Your task to perform on an android device: allow cookies in the chrome app Image 0: 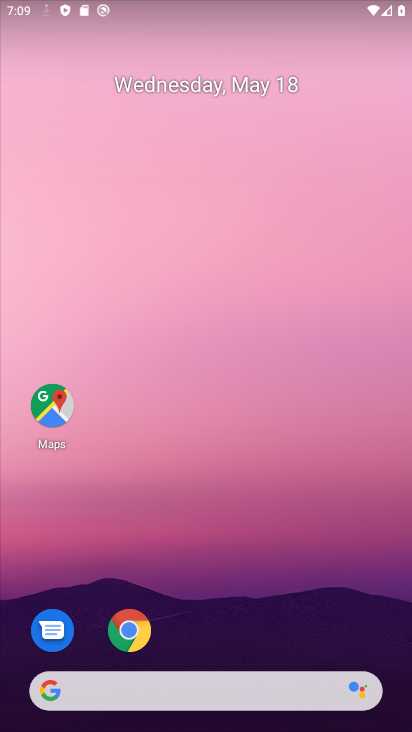
Step 0: click (127, 628)
Your task to perform on an android device: allow cookies in the chrome app Image 1: 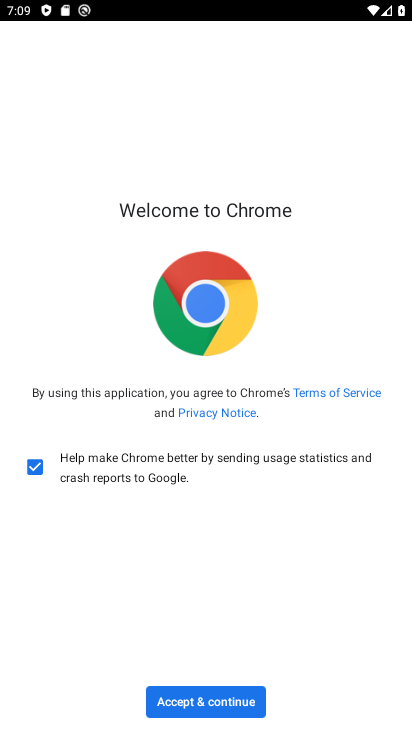
Step 1: click (214, 693)
Your task to perform on an android device: allow cookies in the chrome app Image 2: 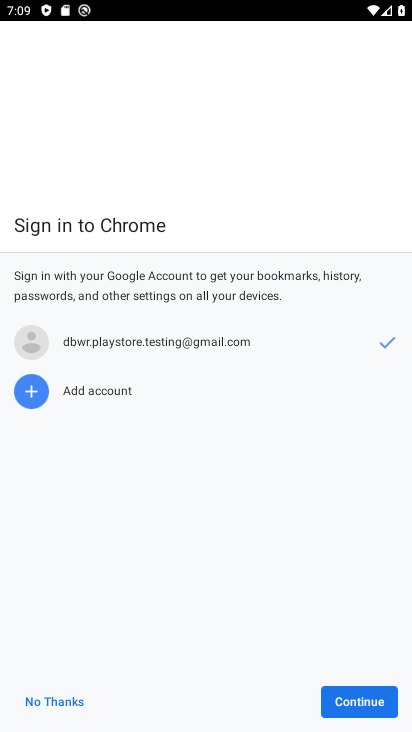
Step 2: click (347, 695)
Your task to perform on an android device: allow cookies in the chrome app Image 3: 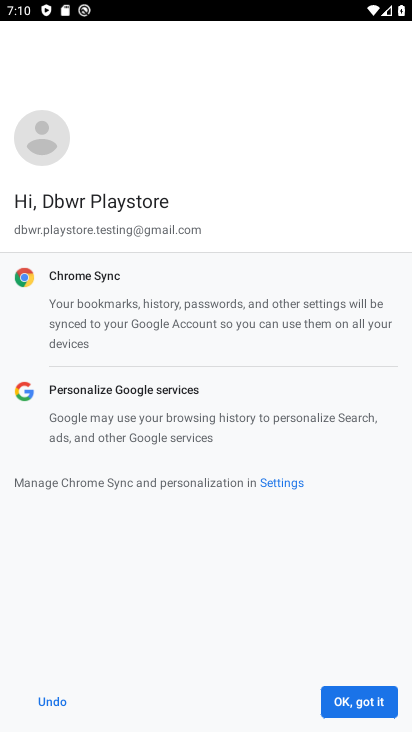
Step 3: click (337, 700)
Your task to perform on an android device: allow cookies in the chrome app Image 4: 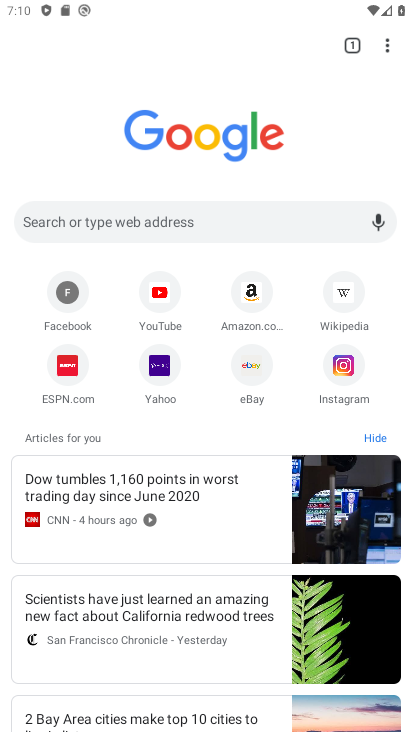
Step 4: click (389, 36)
Your task to perform on an android device: allow cookies in the chrome app Image 5: 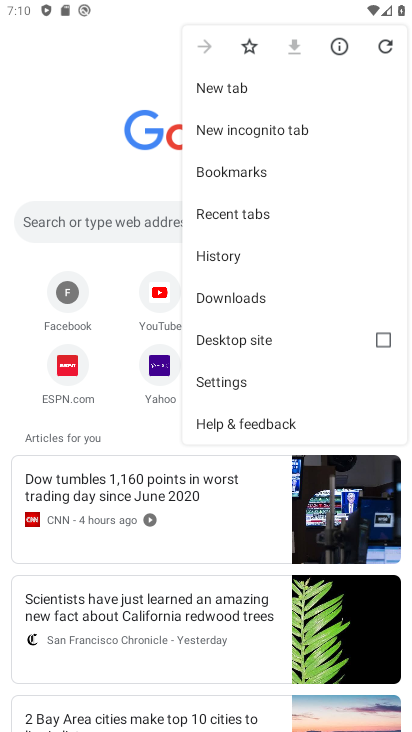
Step 5: click (220, 374)
Your task to perform on an android device: allow cookies in the chrome app Image 6: 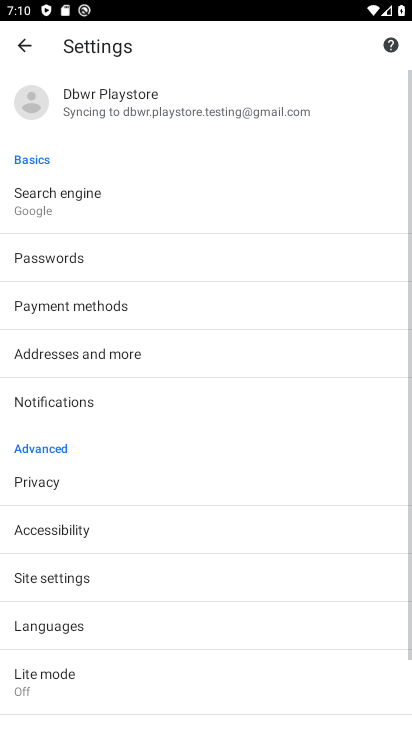
Step 6: drag from (305, 425) to (227, 134)
Your task to perform on an android device: allow cookies in the chrome app Image 7: 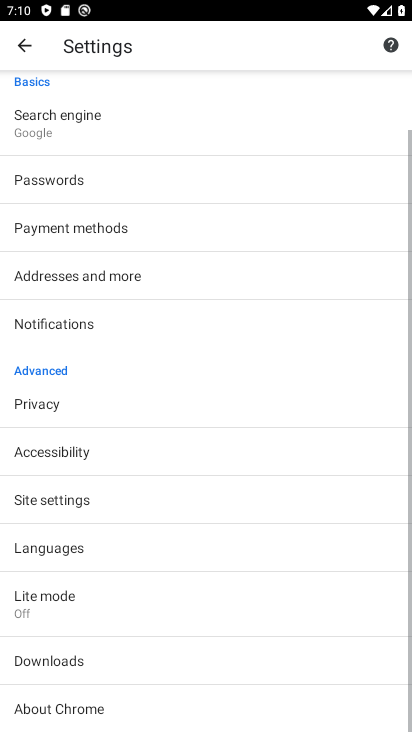
Step 7: drag from (178, 417) to (146, 212)
Your task to perform on an android device: allow cookies in the chrome app Image 8: 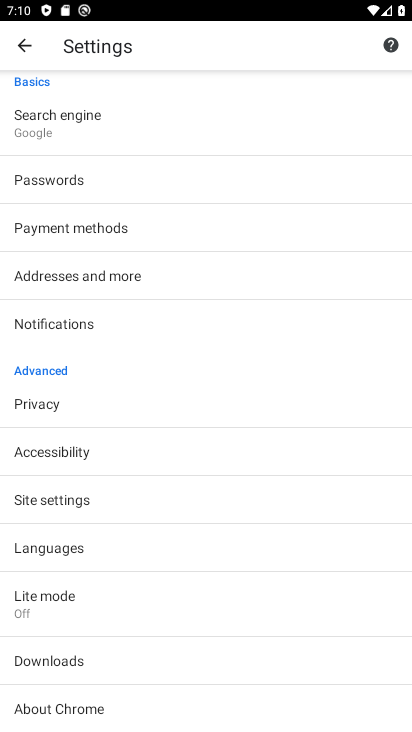
Step 8: click (49, 499)
Your task to perform on an android device: allow cookies in the chrome app Image 9: 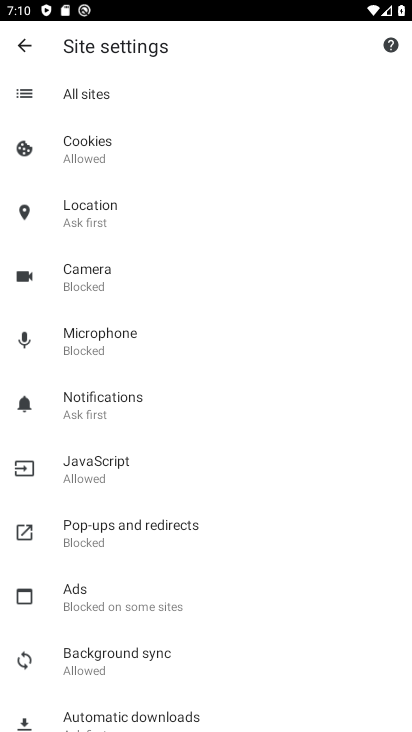
Step 9: click (93, 142)
Your task to perform on an android device: allow cookies in the chrome app Image 10: 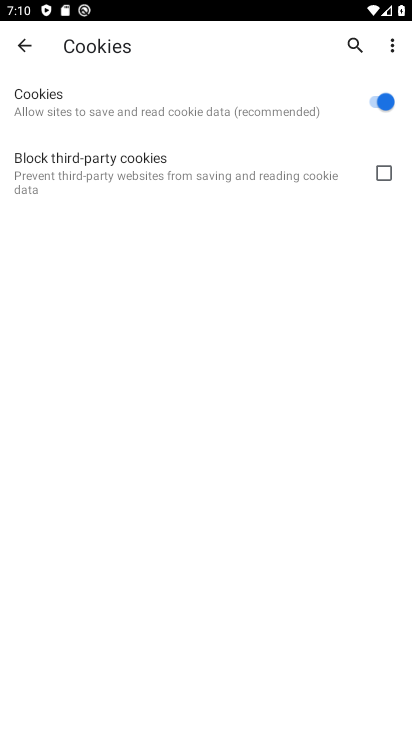
Step 10: task complete